Your task to perform on an android device: Open the map Image 0: 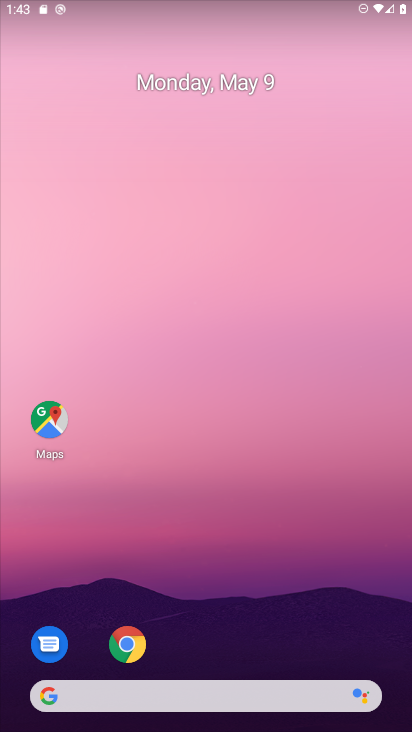
Step 0: click (43, 418)
Your task to perform on an android device: Open the map Image 1: 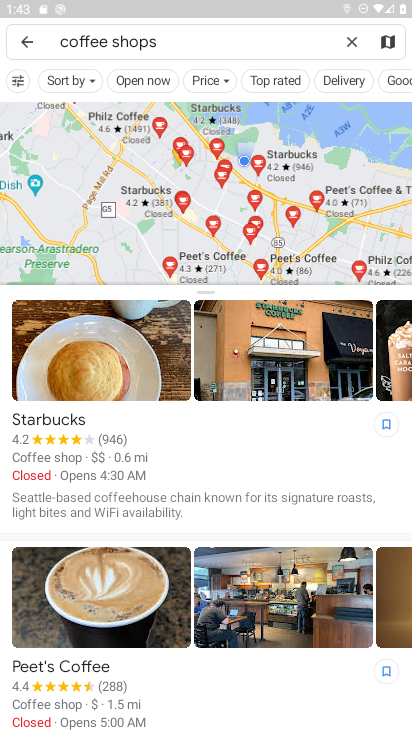
Step 1: task complete